Your task to perform on an android device: move an email to a new category in the gmail app Image 0: 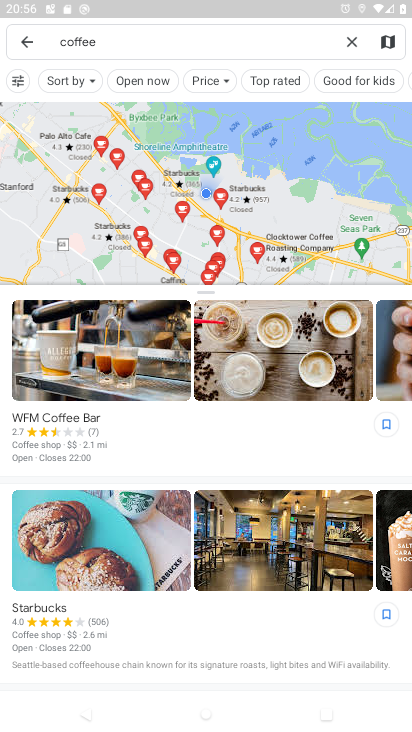
Step 0: press home button
Your task to perform on an android device: move an email to a new category in the gmail app Image 1: 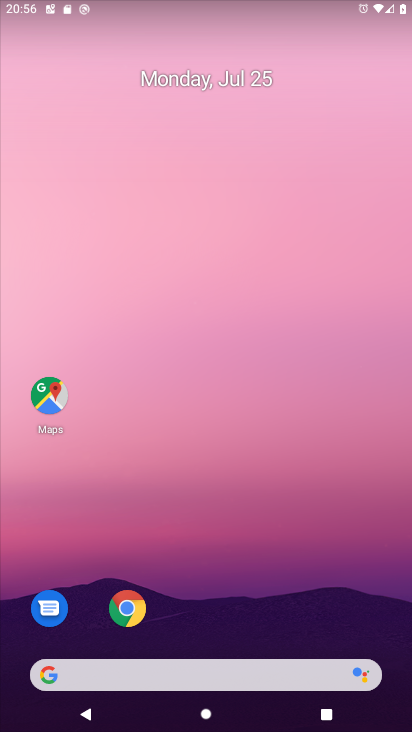
Step 1: drag from (282, 628) to (266, 134)
Your task to perform on an android device: move an email to a new category in the gmail app Image 2: 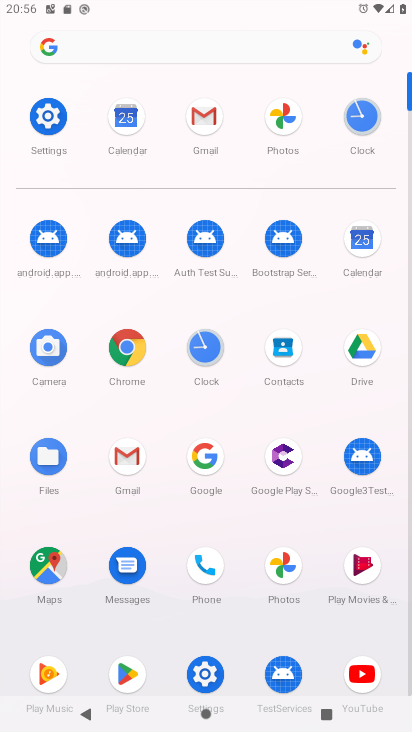
Step 2: click (206, 119)
Your task to perform on an android device: move an email to a new category in the gmail app Image 3: 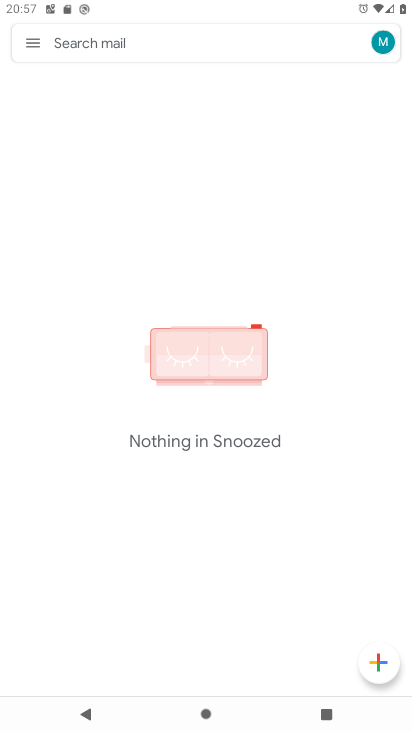
Step 3: click (30, 49)
Your task to perform on an android device: move an email to a new category in the gmail app Image 4: 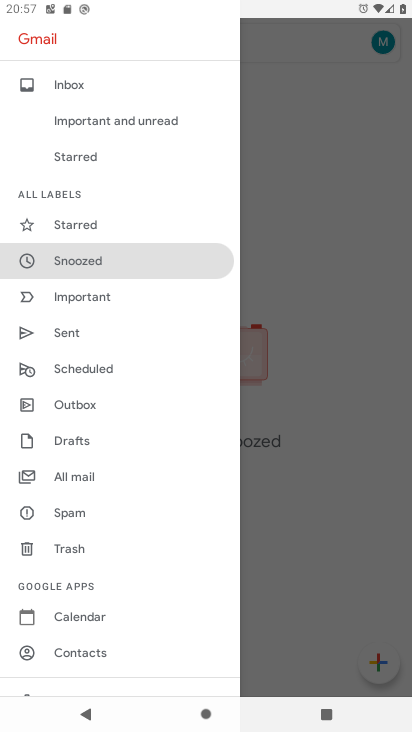
Step 4: click (87, 481)
Your task to perform on an android device: move an email to a new category in the gmail app Image 5: 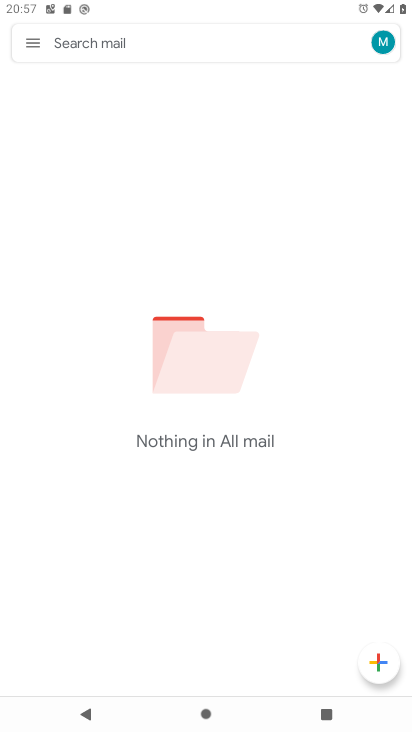
Step 5: task complete